Your task to perform on an android device: turn on javascript in the chrome app Image 0: 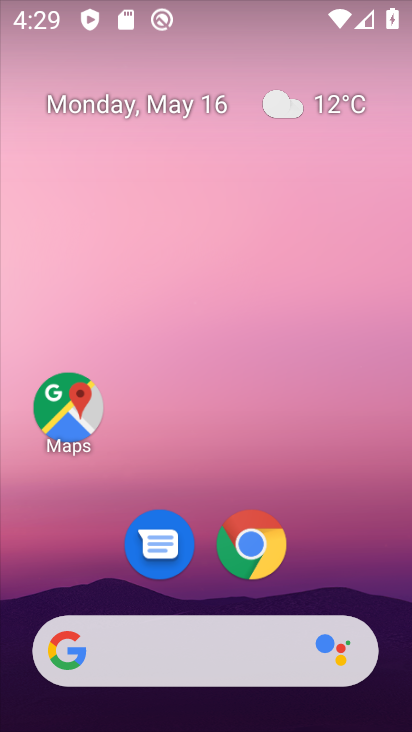
Step 0: click (248, 542)
Your task to perform on an android device: turn on javascript in the chrome app Image 1: 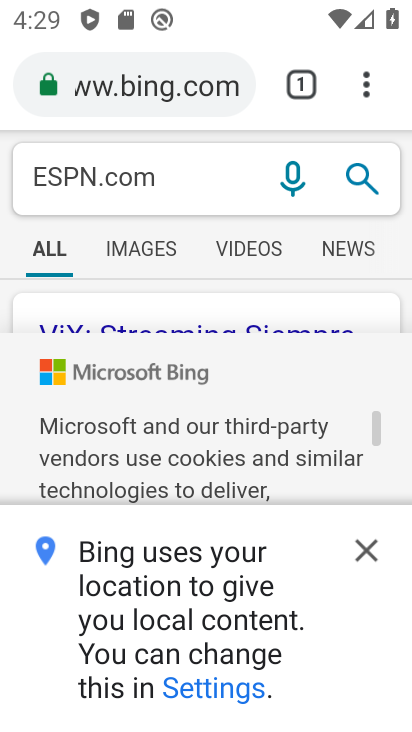
Step 1: click (364, 82)
Your task to perform on an android device: turn on javascript in the chrome app Image 2: 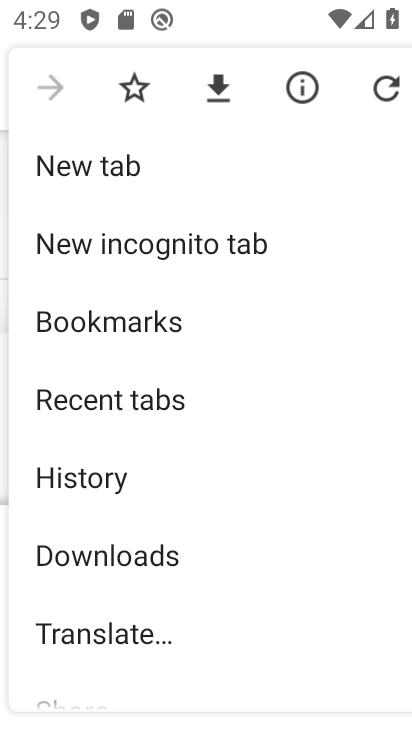
Step 2: drag from (163, 479) to (216, 310)
Your task to perform on an android device: turn on javascript in the chrome app Image 3: 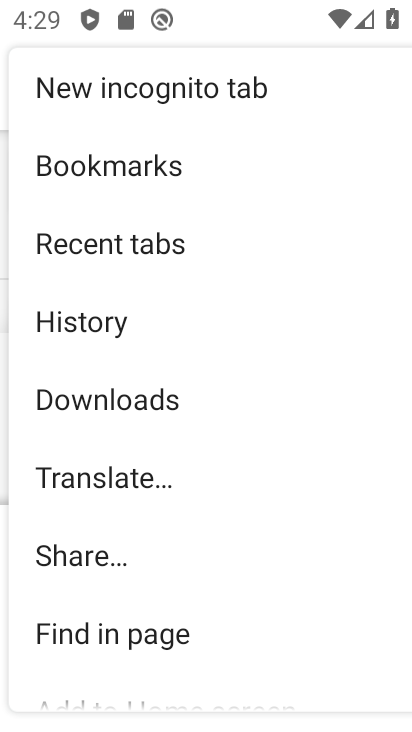
Step 3: drag from (130, 533) to (181, 402)
Your task to perform on an android device: turn on javascript in the chrome app Image 4: 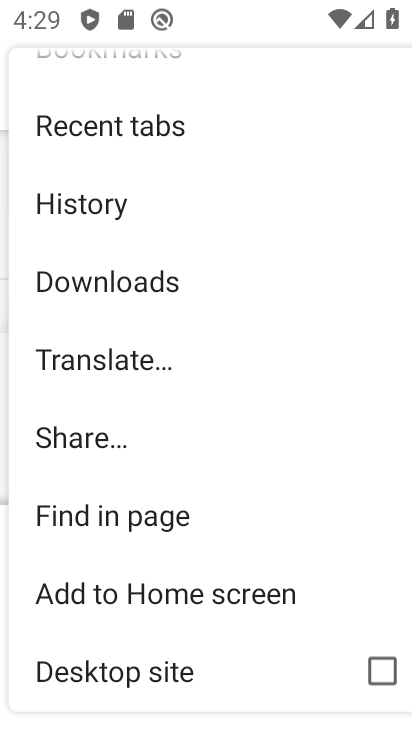
Step 4: drag from (184, 542) to (223, 404)
Your task to perform on an android device: turn on javascript in the chrome app Image 5: 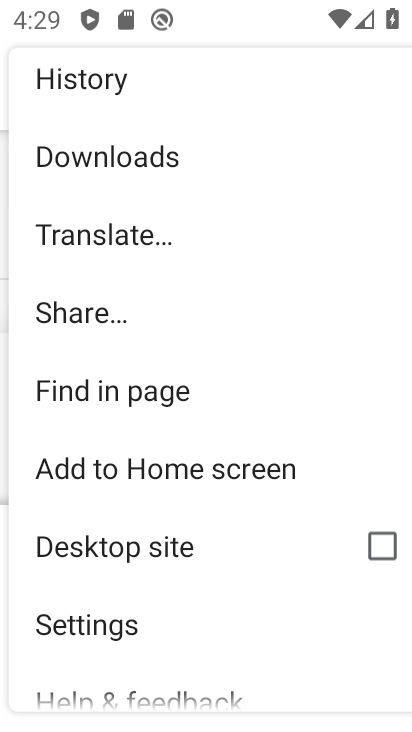
Step 5: click (82, 626)
Your task to perform on an android device: turn on javascript in the chrome app Image 6: 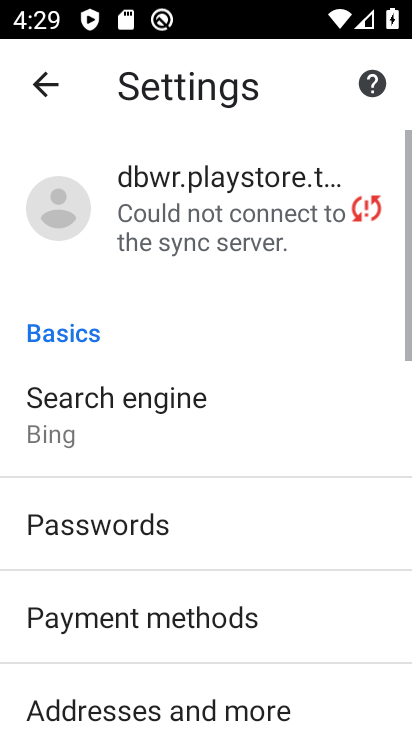
Step 6: drag from (135, 584) to (160, 411)
Your task to perform on an android device: turn on javascript in the chrome app Image 7: 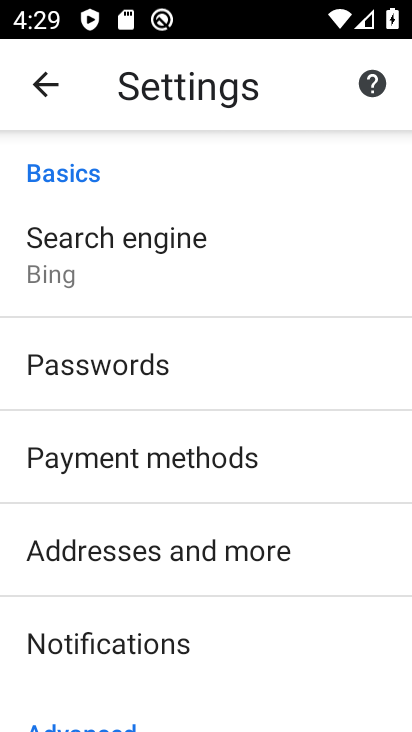
Step 7: drag from (104, 617) to (149, 476)
Your task to perform on an android device: turn on javascript in the chrome app Image 8: 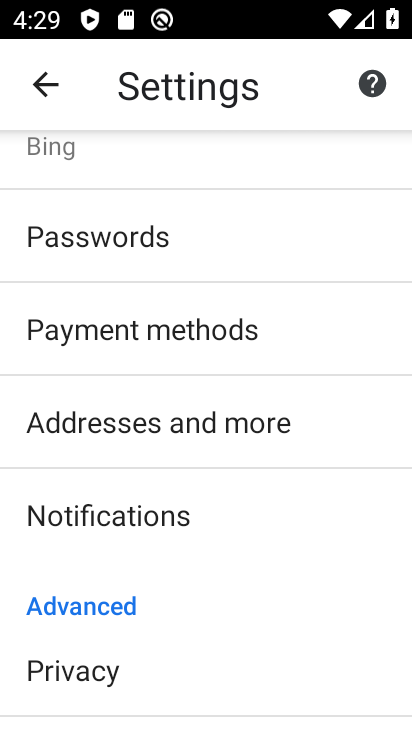
Step 8: drag from (118, 548) to (159, 405)
Your task to perform on an android device: turn on javascript in the chrome app Image 9: 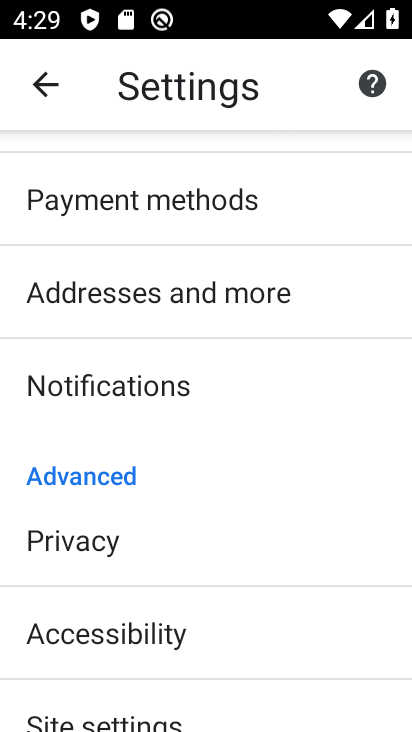
Step 9: drag from (96, 586) to (141, 446)
Your task to perform on an android device: turn on javascript in the chrome app Image 10: 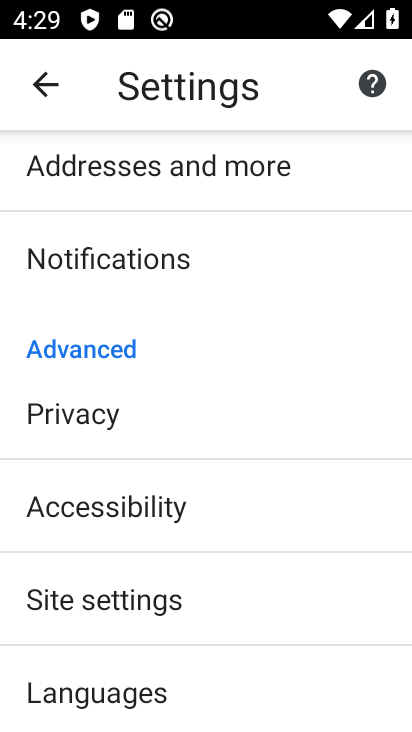
Step 10: click (93, 595)
Your task to perform on an android device: turn on javascript in the chrome app Image 11: 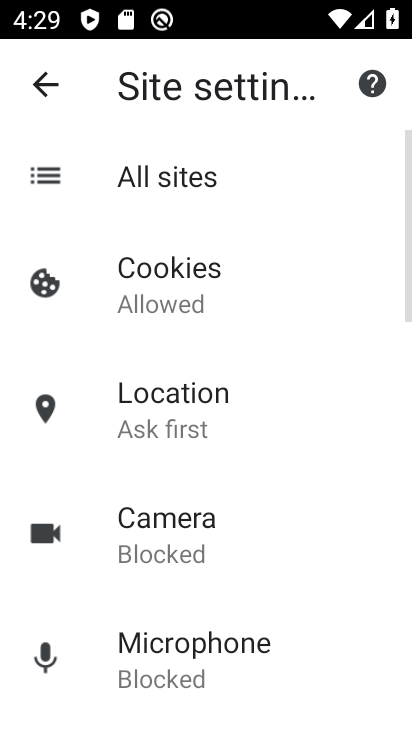
Step 11: drag from (190, 577) to (222, 413)
Your task to perform on an android device: turn on javascript in the chrome app Image 12: 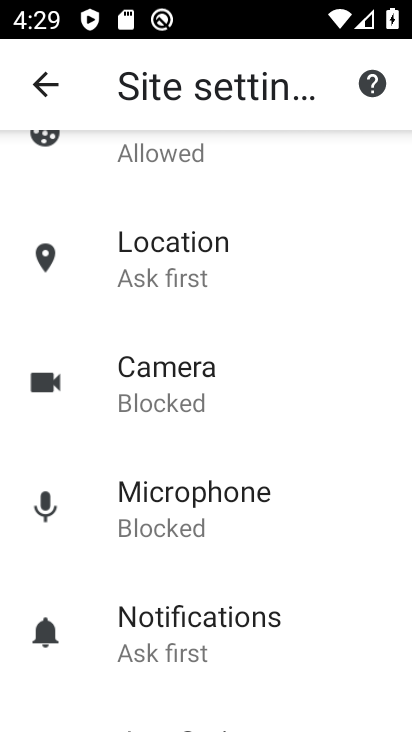
Step 12: drag from (168, 569) to (214, 408)
Your task to perform on an android device: turn on javascript in the chrome app Image 13: 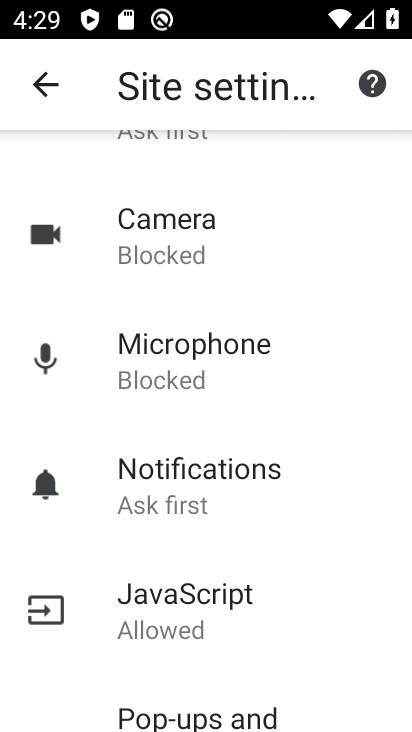
Step 13: drag from (152, 540) to (207, 431)
Your task to perform on an android device: turn on javascript in the chrome app Image 14: 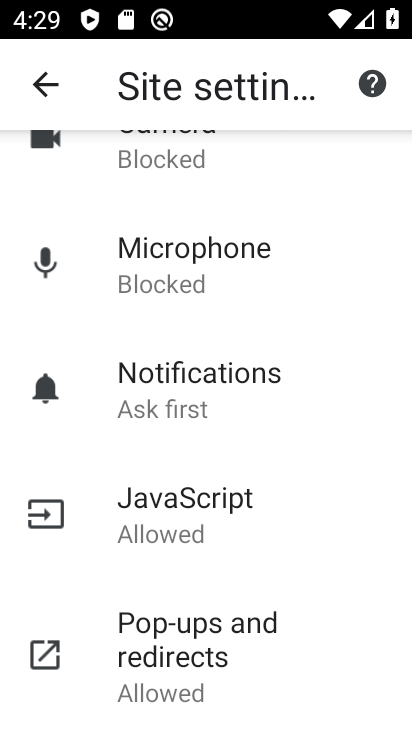
Step 14: click (166, 506)
Your task to perform on an android device: turn on javascript in the chrome app Image 15: 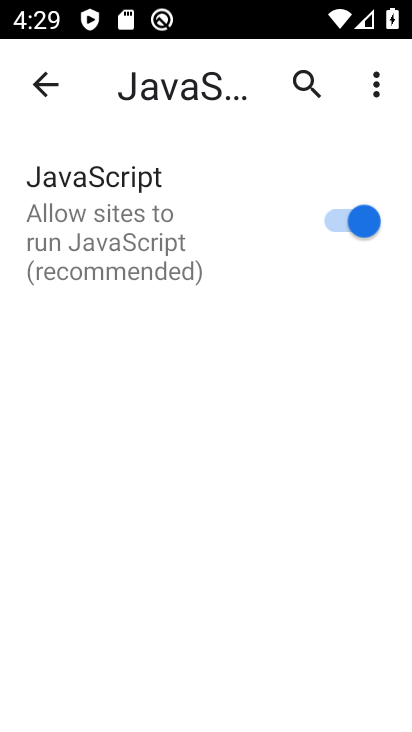
Step 15: task complete